Your task to perform on an android device: Go to network settings Image 0: 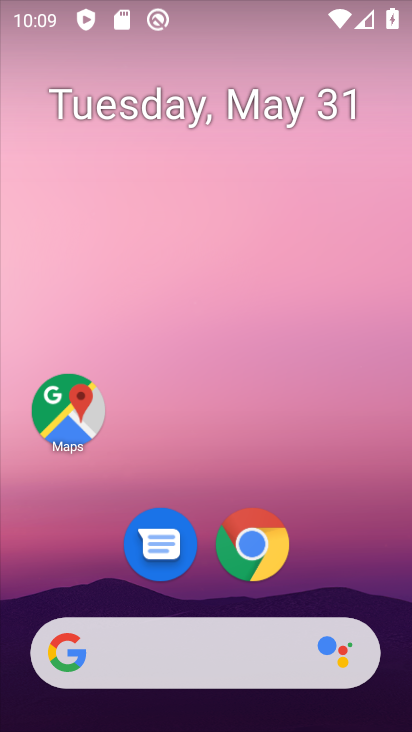
Step 0: drag from (206, 586) to (247, 247)
Your task to perform on an android device: Go to network settings Image 1: 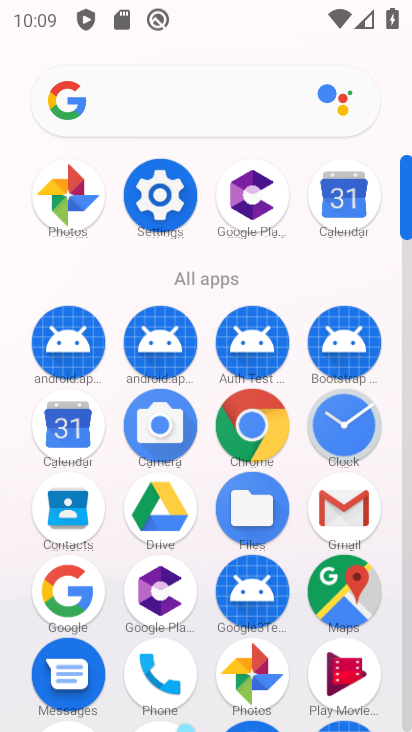
Step 1: click (164, 180)
Your task to perform on an android device: Go to network settings Image 2: 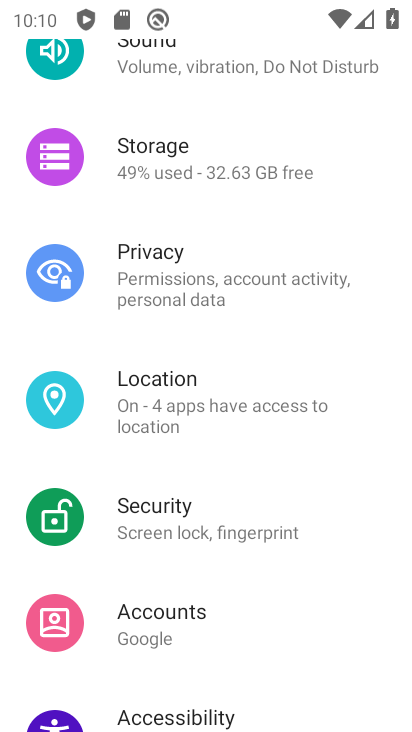
Step 2: drag from (265, 485) to (265, 524)
Your task to perform on an android device: Go to network settings Image 3: 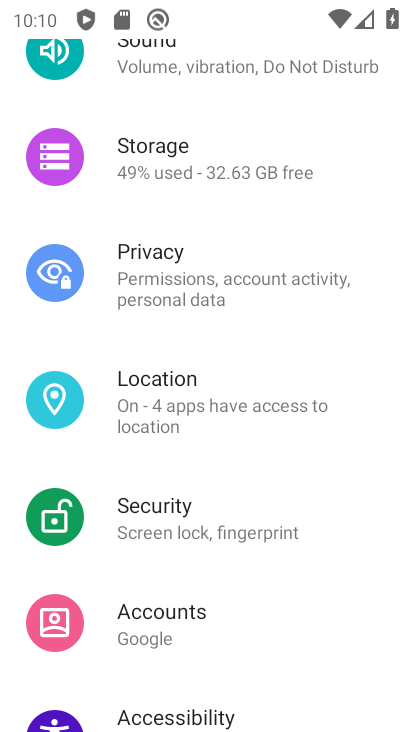
Step 3: drag from (202, 150) to (212, 515)
Your task to perform on an android device: Go to network settings Image 4: 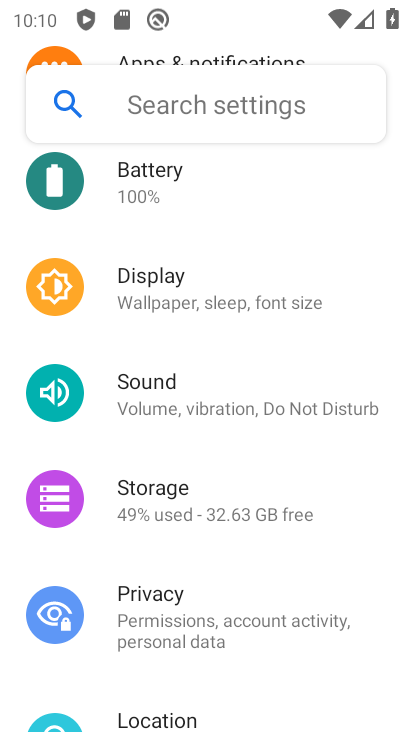
Step 4: drag from (189, 199) to (191, 493)
Your task to perform on an android device: Go to network settings Image 5: 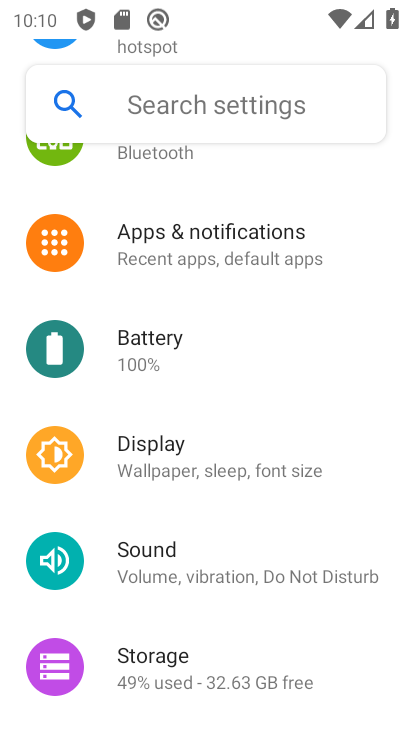
Step 5: drag from (192, 246) to (229, 523)
Your task to perform on an android device: Go to network settings Image 6: 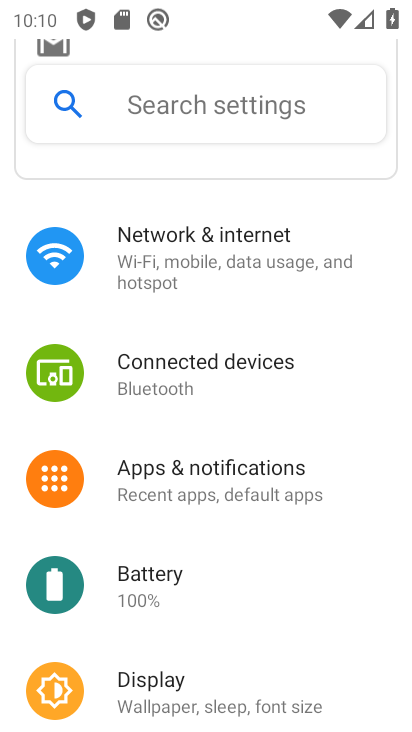
Step 6: click (211, 277)
Your task to perform on an android device: Go to network settings Image 7: 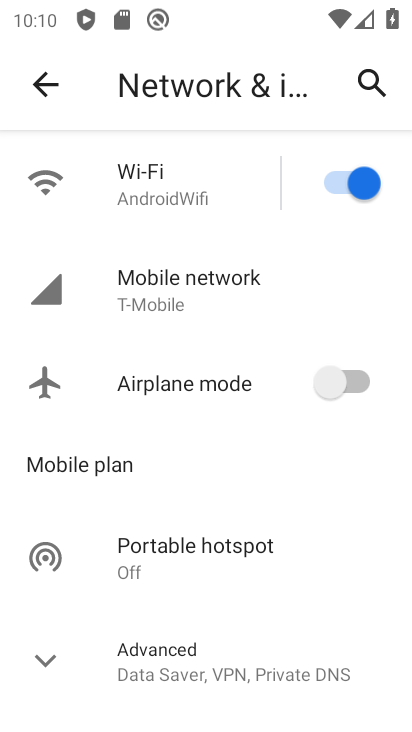
Step 7: click (205, 277)
Your task to perform on an android device: Go to network settings Image 8: 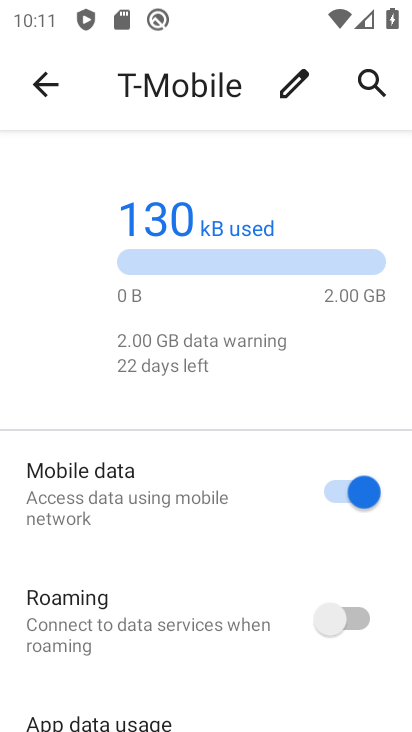
Step 8: task complete